Your task to perform on an android device: Is it going to rain tomorrow? Image 0: 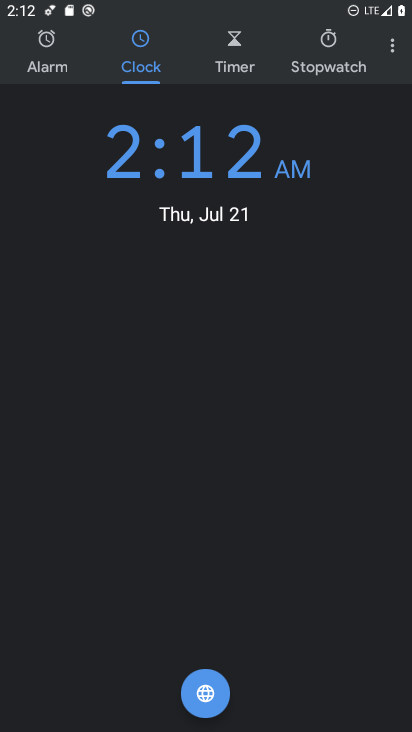
Step 0: press home button
Your task to perform on an android device: Is it going to rain tomorrow? Image 1: 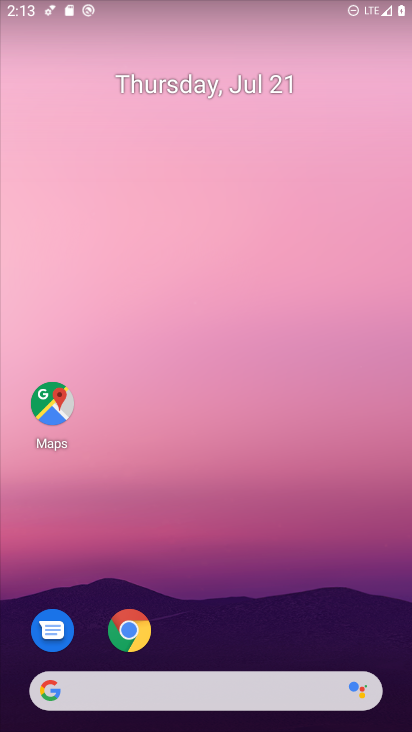
Step 1: drag from (15, 203) to (409, 144)
Your task to perform on an android device: Is it going to rain tomorrow? Image 2: 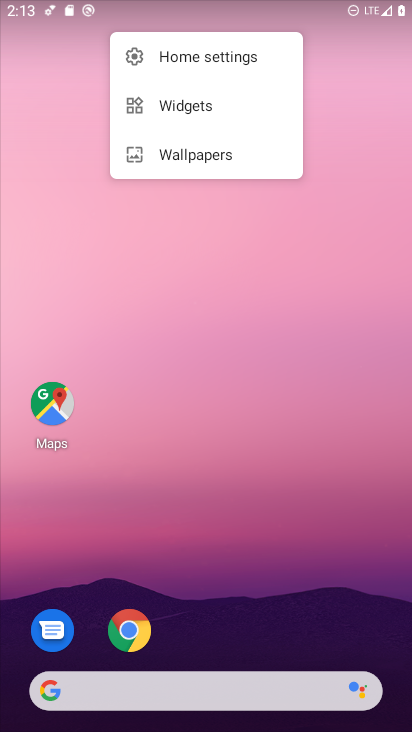
Step 2: click (0, 304)
Your task to perform on an android device: Is it going to rain tomorrow? Image 3: 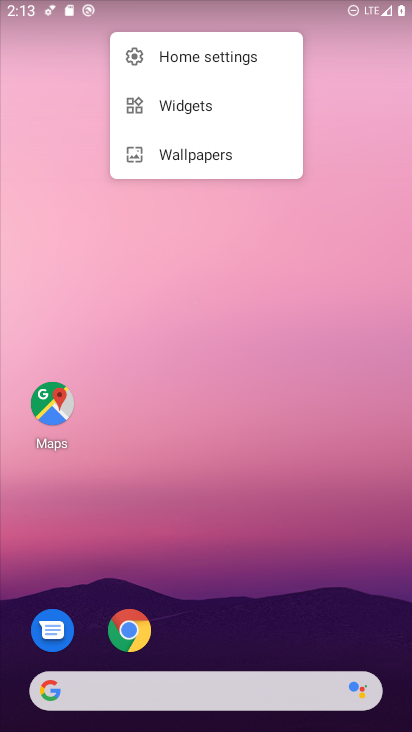
Step 3: click (60, 303)
Your task to perform on an android device: Is it going to rain tomorrow? Image 4: 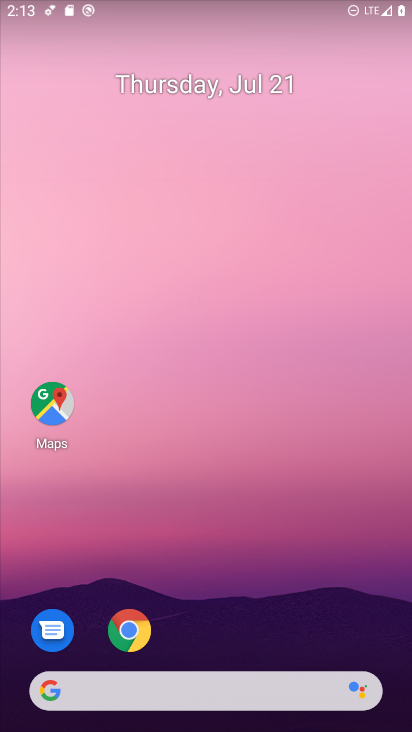
Step 4: drag from (60, 303) to (390, 238)
Your task to perform on an android device: Is it going to rain tomorrow? Image 5: 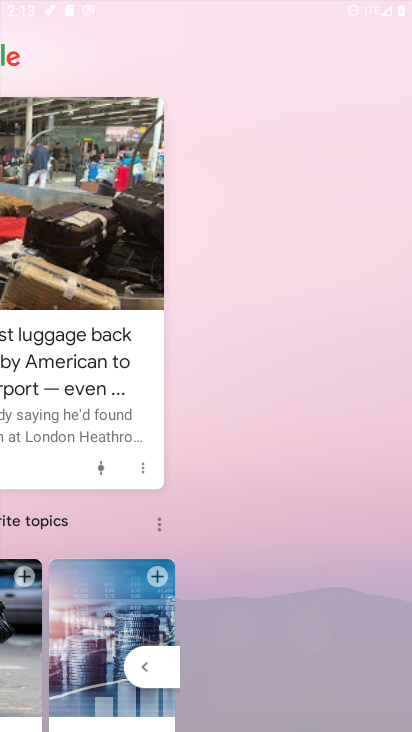
Step 5: press home button
Your task to perform on an android device: Is it going to rain tomorrow? Image 6: 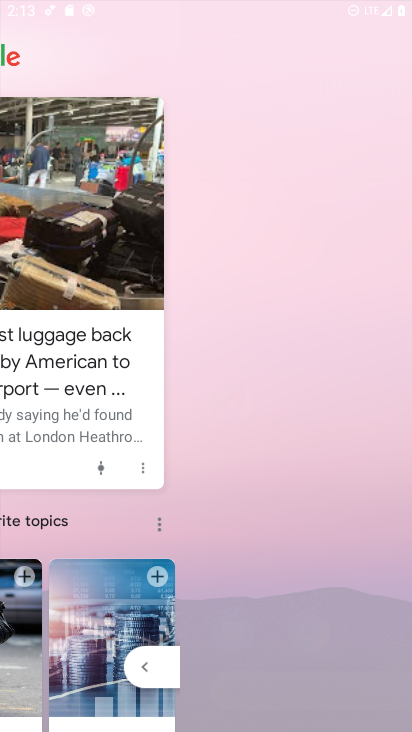
Step 6: click (411, 212)
Your task to perform on an android device: Is it going to rain tomorrow? Image 7: 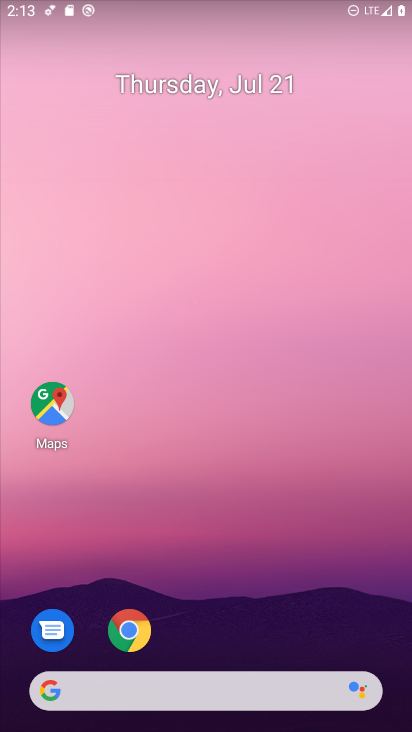
Step 7: click (219, 700)
Your task to perform on an android device: Is it going to rain tomorrow? Image 8: 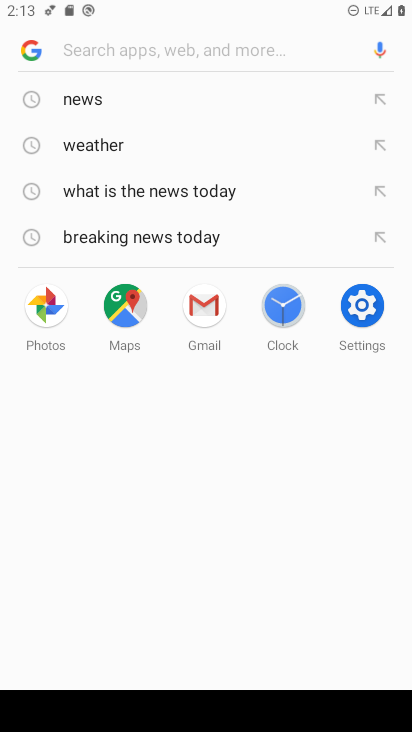
Step 8: type "rain tomorrow?"
Your task to perform on an android device: Is it going to rain tomorrow? Image 9: 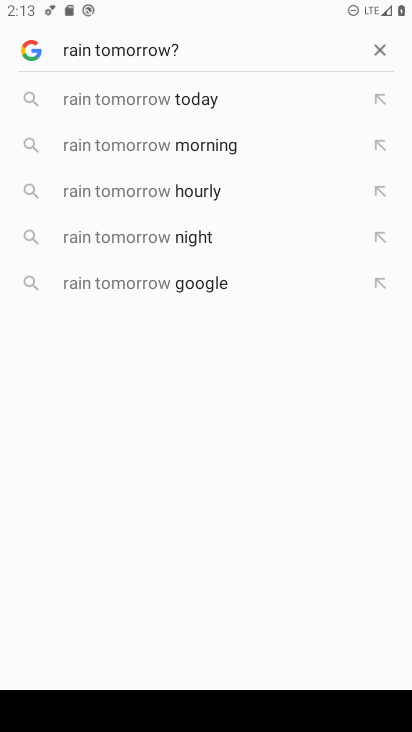
Step 9: press enter
Your task to perform on an android device: Is it going to rain tomorrow? Image 10: 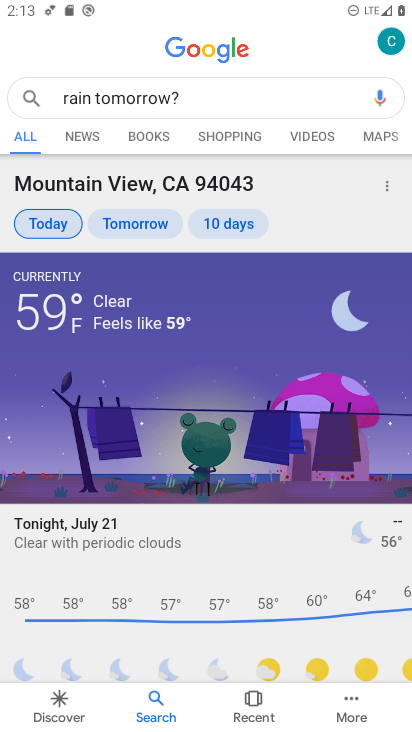
Step 10: task complete